Your task to perform on an android device: Open settings on Google Maps Image 0: 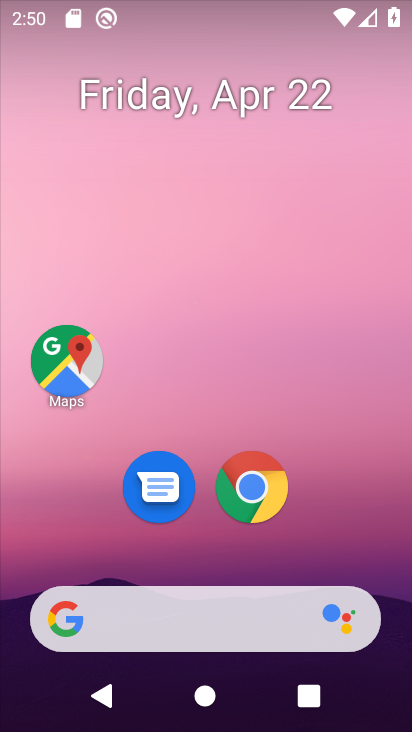
Step 0: drag from (21, 572) to (359, 109)
Your task to perform on an android device: Open settings on Google Maps Image 1: 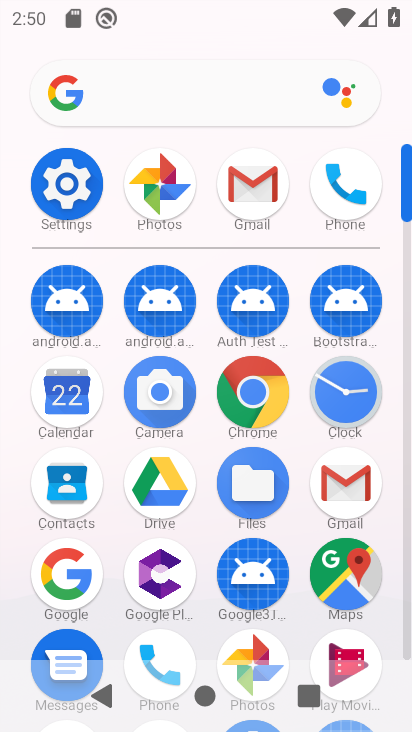
Step 1: click (369, 568)
Your task to perform on an android device: Open settings on Google Maps Image 2: 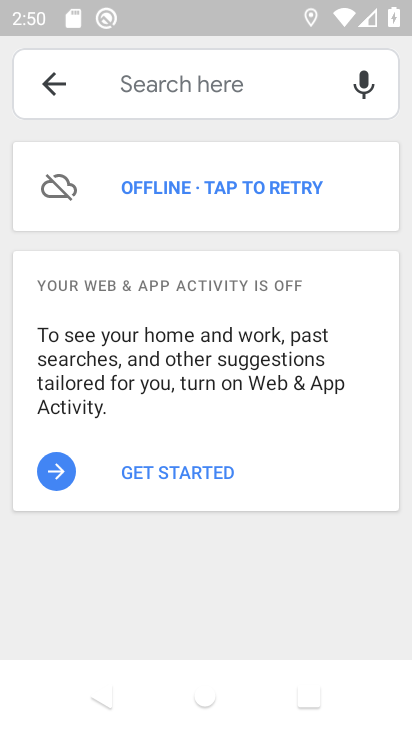
Step 2: click (50, 82)
Your task to perform on an android device: Open settings on Google Maps Image 3: 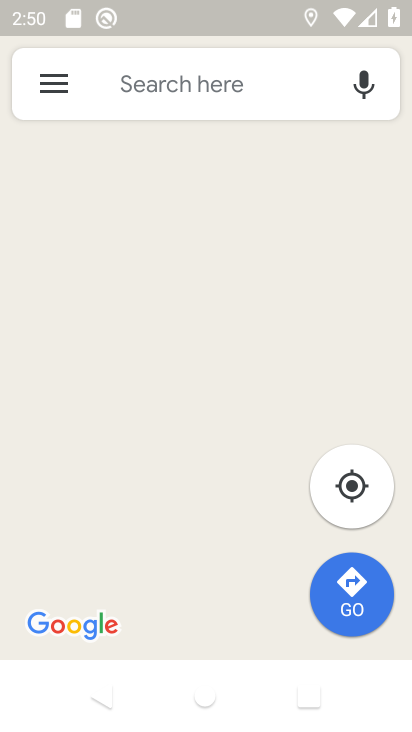
Step 3: click (50, 82)
Your task to perform on an android device: Open settings on Google Maps Image 4: 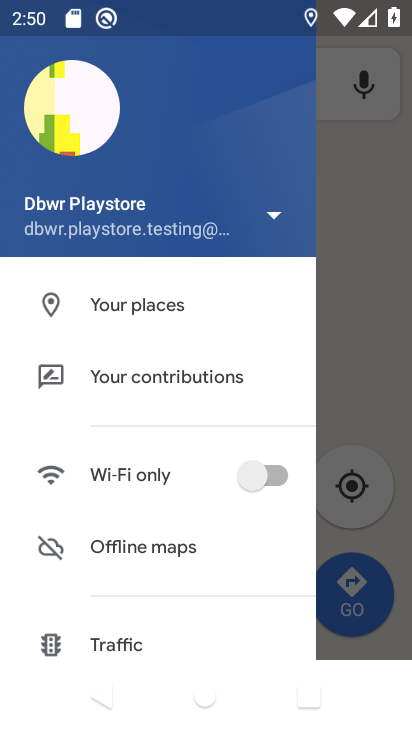
Step 4: drag from (69, 635) to (224, 170)
Your task to perform on an android device: Open settings on Google Maps Image 5: 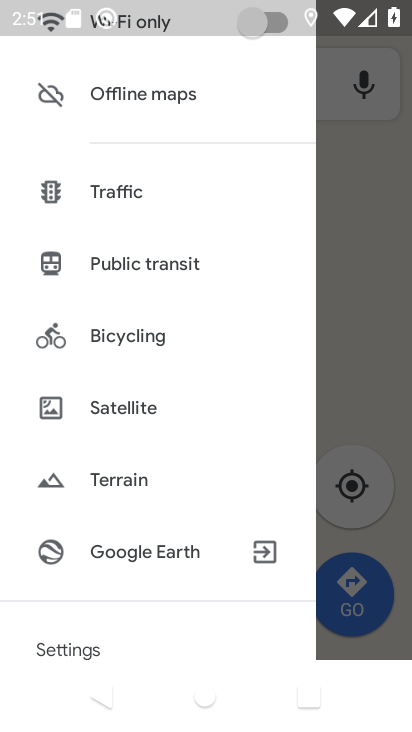
Step 5: drag from (86, 631) to (173, 302)
Your task to perform on an android device: Open settings on Google Maps Image 6: 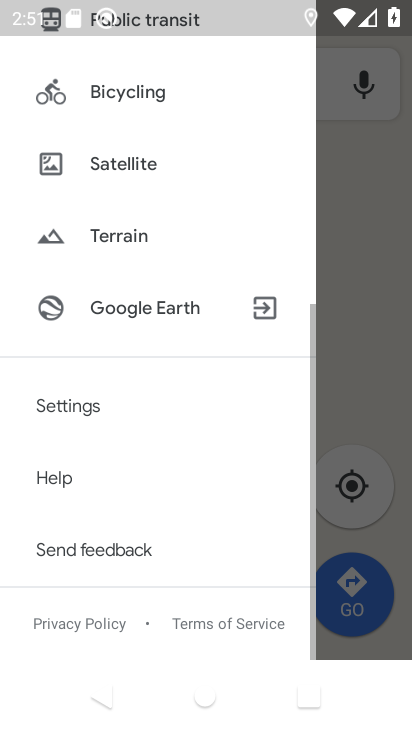
Step 6: click (81, 653)
Your task to perform on an android device: Open settings on Google Maps Image 7: 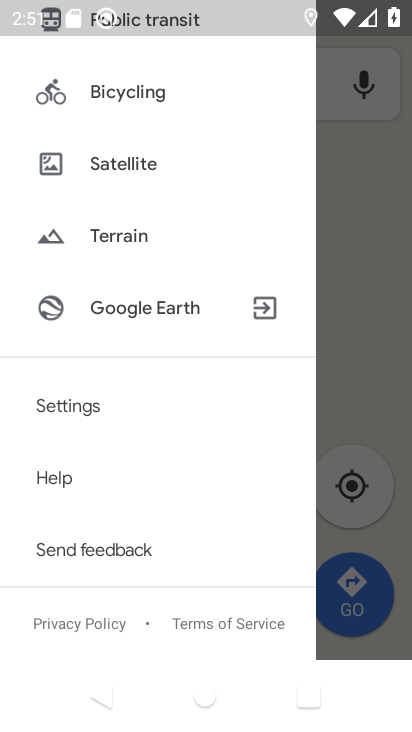
Step 7: click (82, 412)
Your task to perform on an android device: Open settings on Google Maps Image 8: 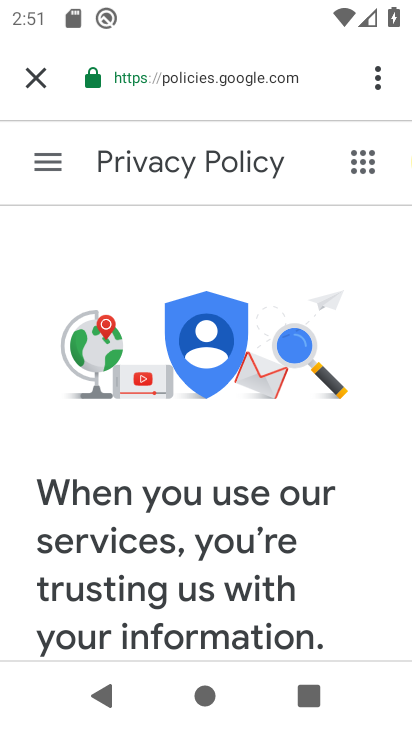
Step 8: task complete